Your task to perform on an android device: visit the assistant section in the google photos Image 0: 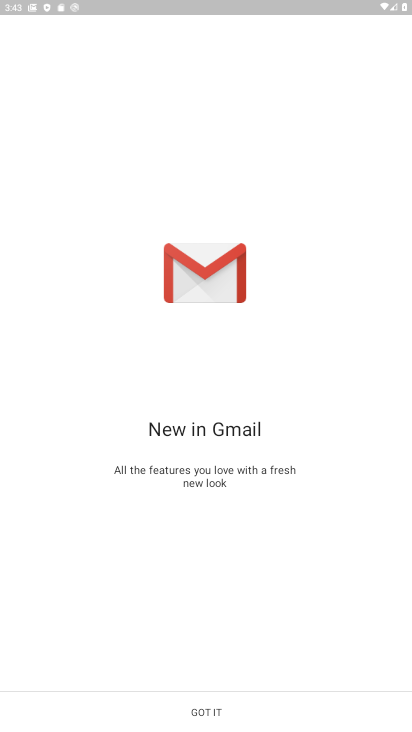
Step 0: press home button
Your task to perform on an android device: visit the assistant section in the google photos Image 1: 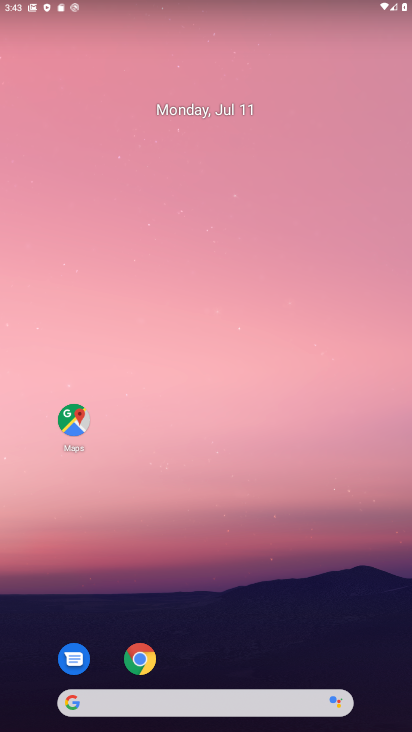
Step 1: drag from (203, 628) to (256, 2)
Your task to perform on an android device: visit the assistant section in the google photos Image 2: 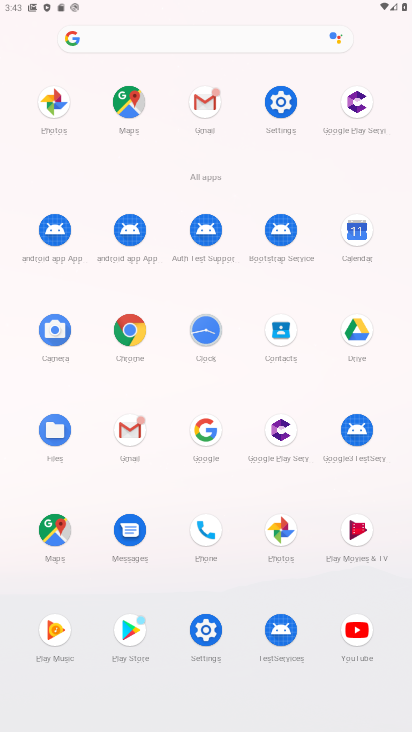
Step 2: click (46, 105)
Your task to perform on an android device: visit the assistant section in the google photos Image 3: 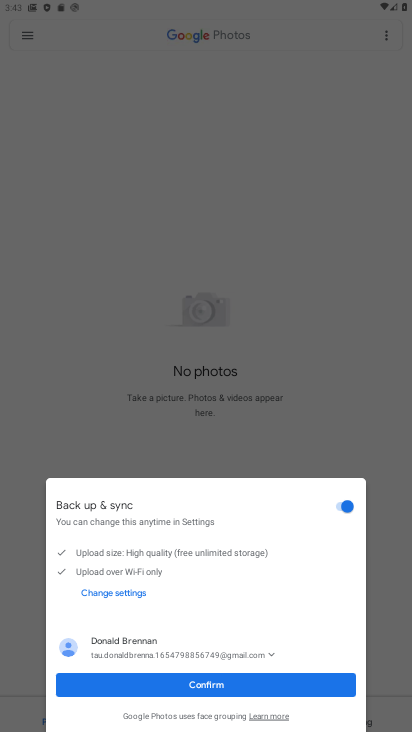
Step 3: click (210, 688)
Your task to perform on an android device: visit the assistant section in the google photos Image 4: 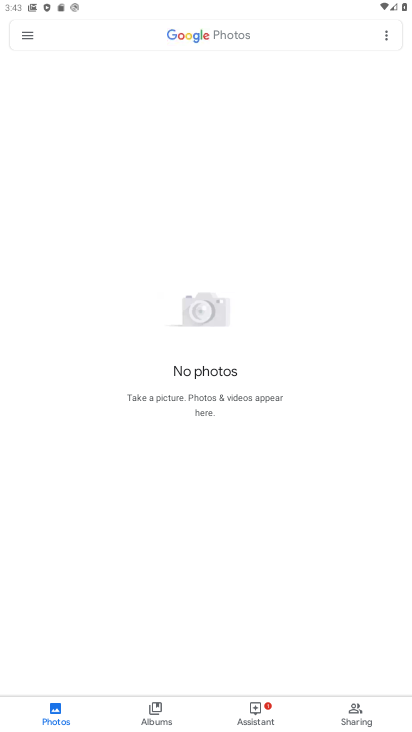
Step 4: click (263, 717)
Your task to perform on an android device: visit the assistant section in the google photos Image 5: 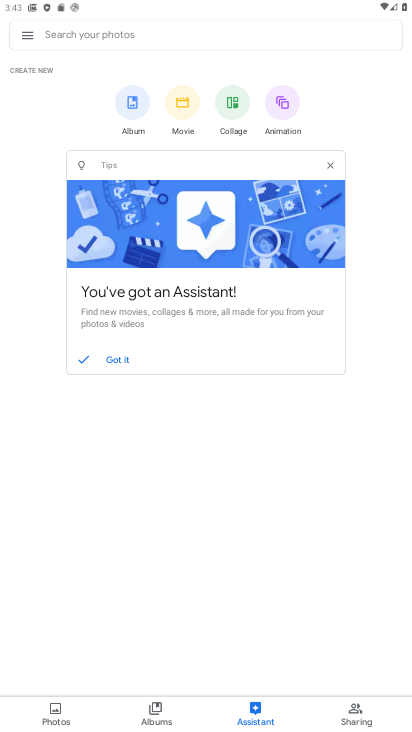
Step 5: task complete